Your task to perform on an android device: When is my next appointment? Image 0: 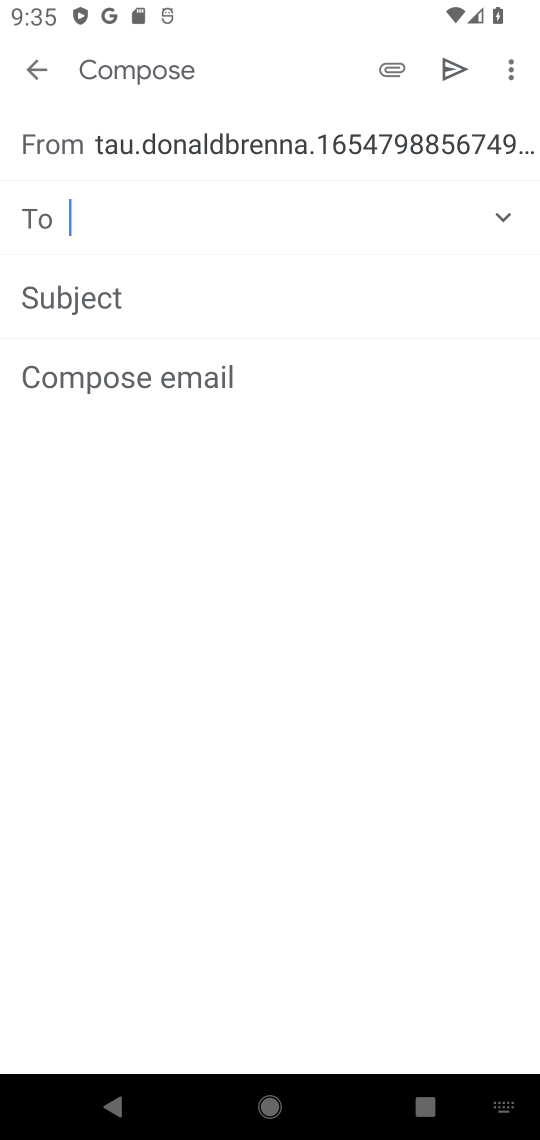
Step 0: press home button
Your task to perform on an android device: When is my next appointment? Image 1: 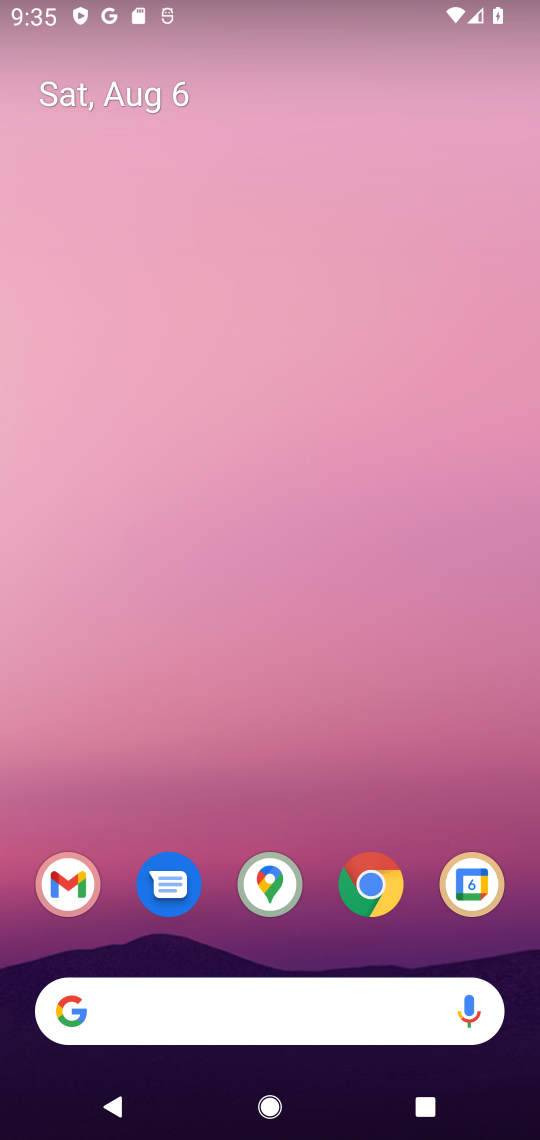
Step 1: click (472, 886)
Your task to perform on an android device: When is my next appointment? Image 2: 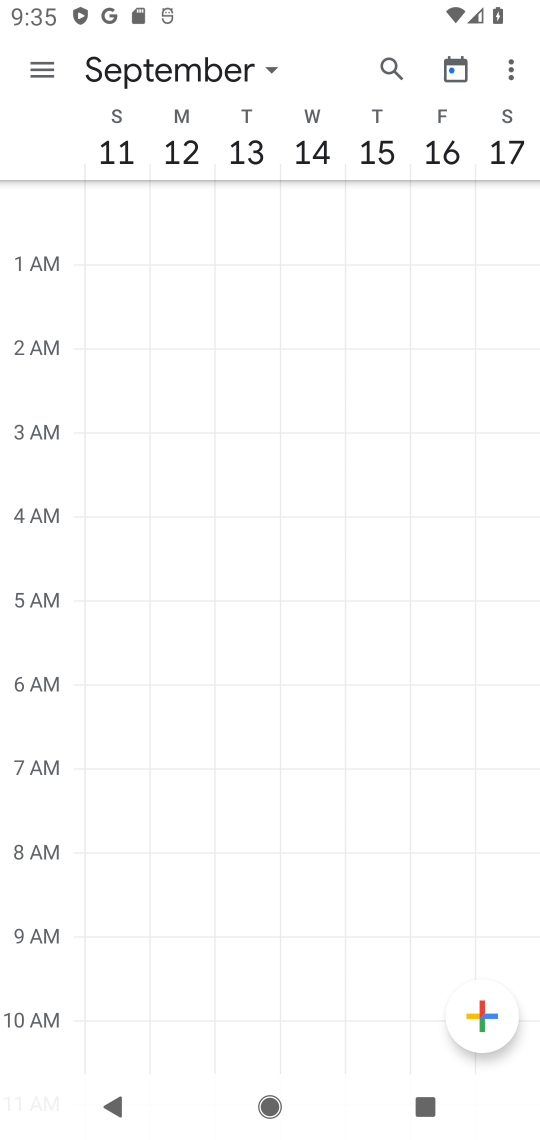
Step 2: click (34, 71)
Your task to perform on an android device: When is my next appointment? Image 3: 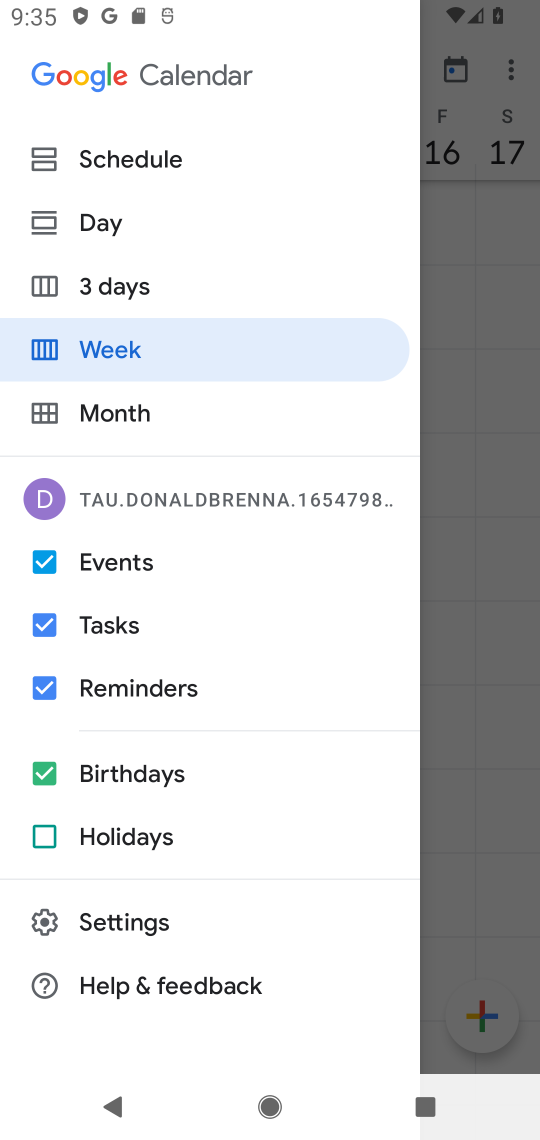
Step 3: click (130, 156)
Your task to perform on an android device: When is my next appointment? Image 4: 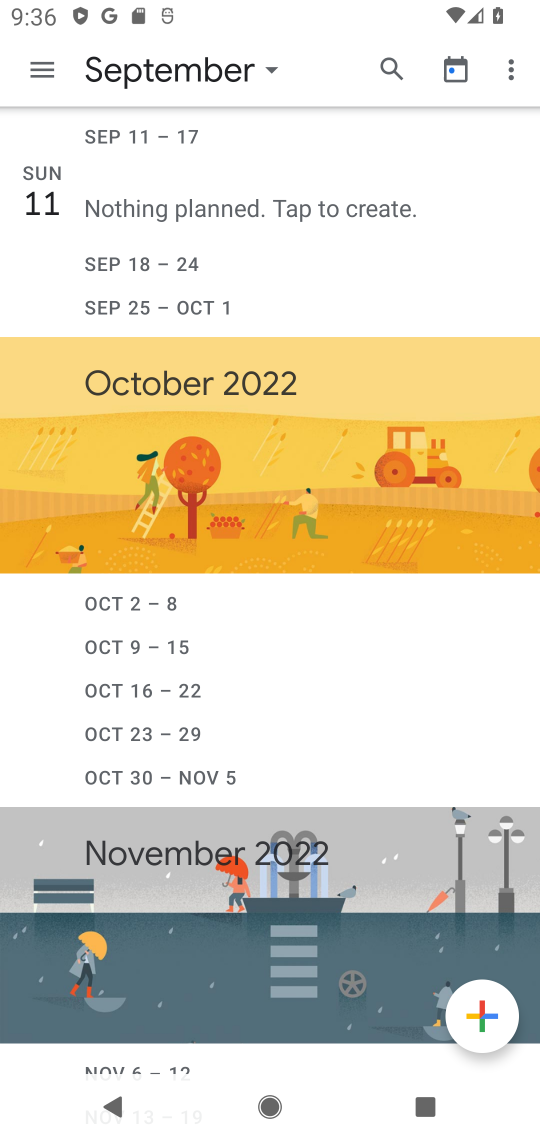
Step 4: task complete